Your task to perform on an android device: Turn on the flashlight Image 0: 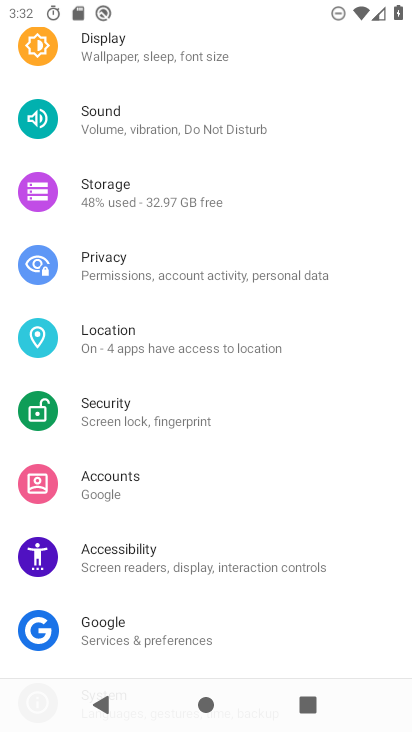
Step 0: press back button
Your task to perform on an android device: Turn on the flashlight Image 1: 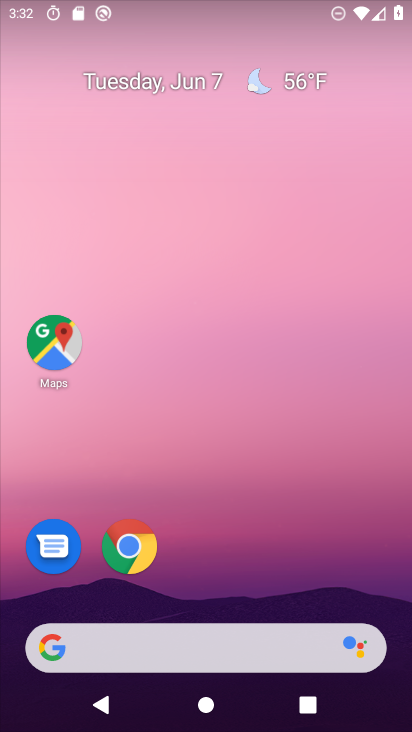
Step 1: drag from (266, 527) to (261, 7)
Your task to perform on an android device: Turn on the flashlight Image 2: 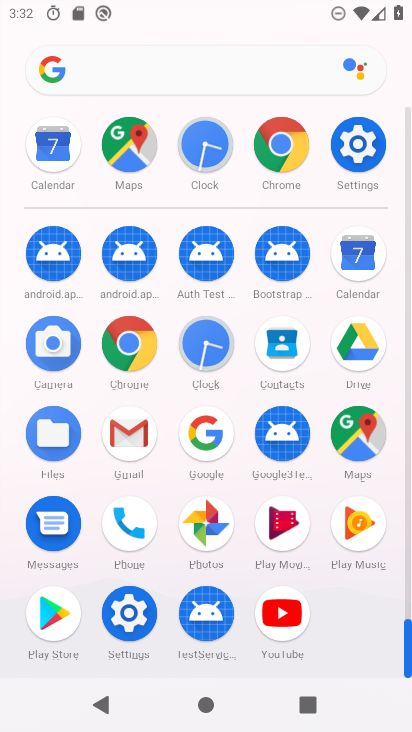
Step 2: click (130, 607)
Your task to perform on an android device: Turn on the flashlight Image 3: 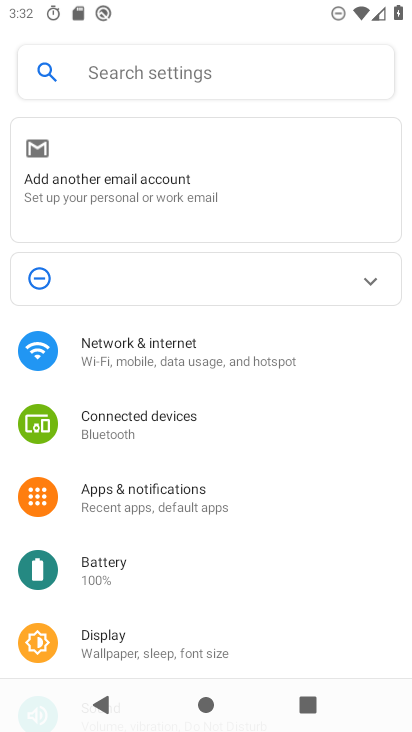
Step 3: click (239, 350)
Your task to perform on an android device: Turn on the flashlight Image 4: 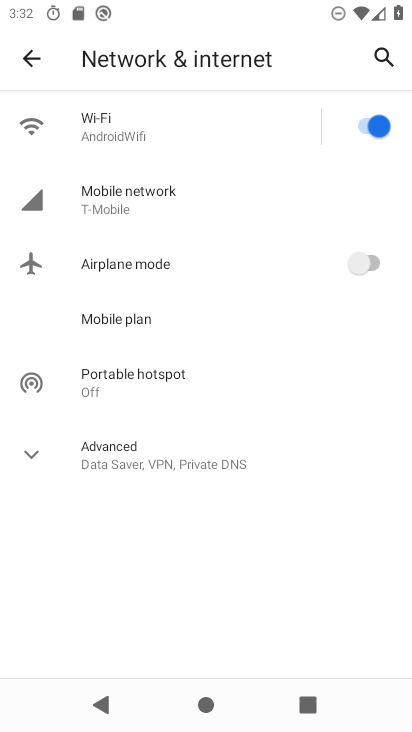
Step 4: click (46, 443)
Your task to perform on an android device: Turn on the flashlight Image 5: 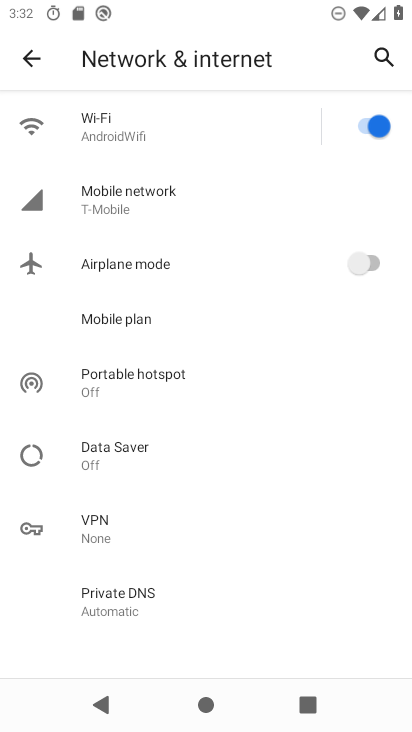
Step 5: task complete